Your task to perform on an android device: check battery use Image 0: 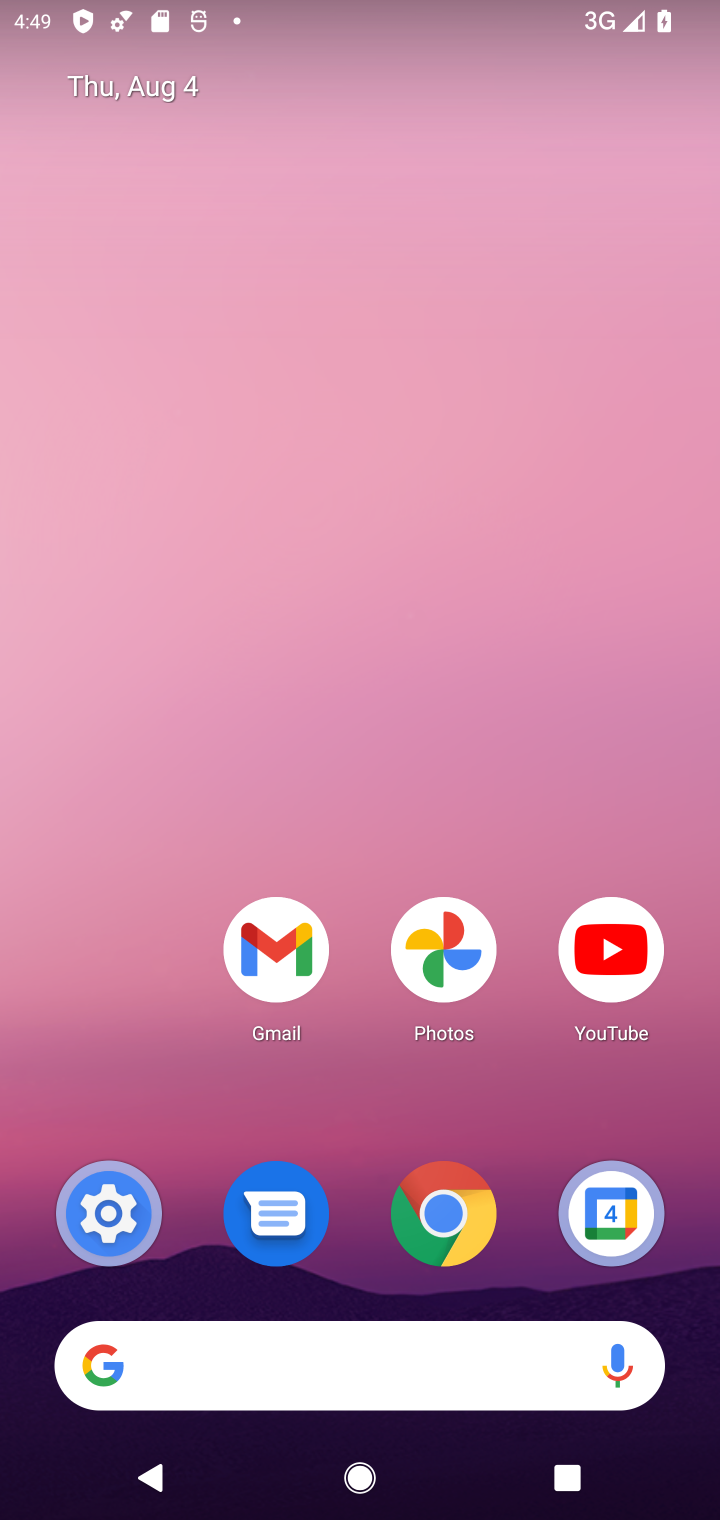
Step 0: press home button
Your task to perform on an android device: check battery use Image 1: 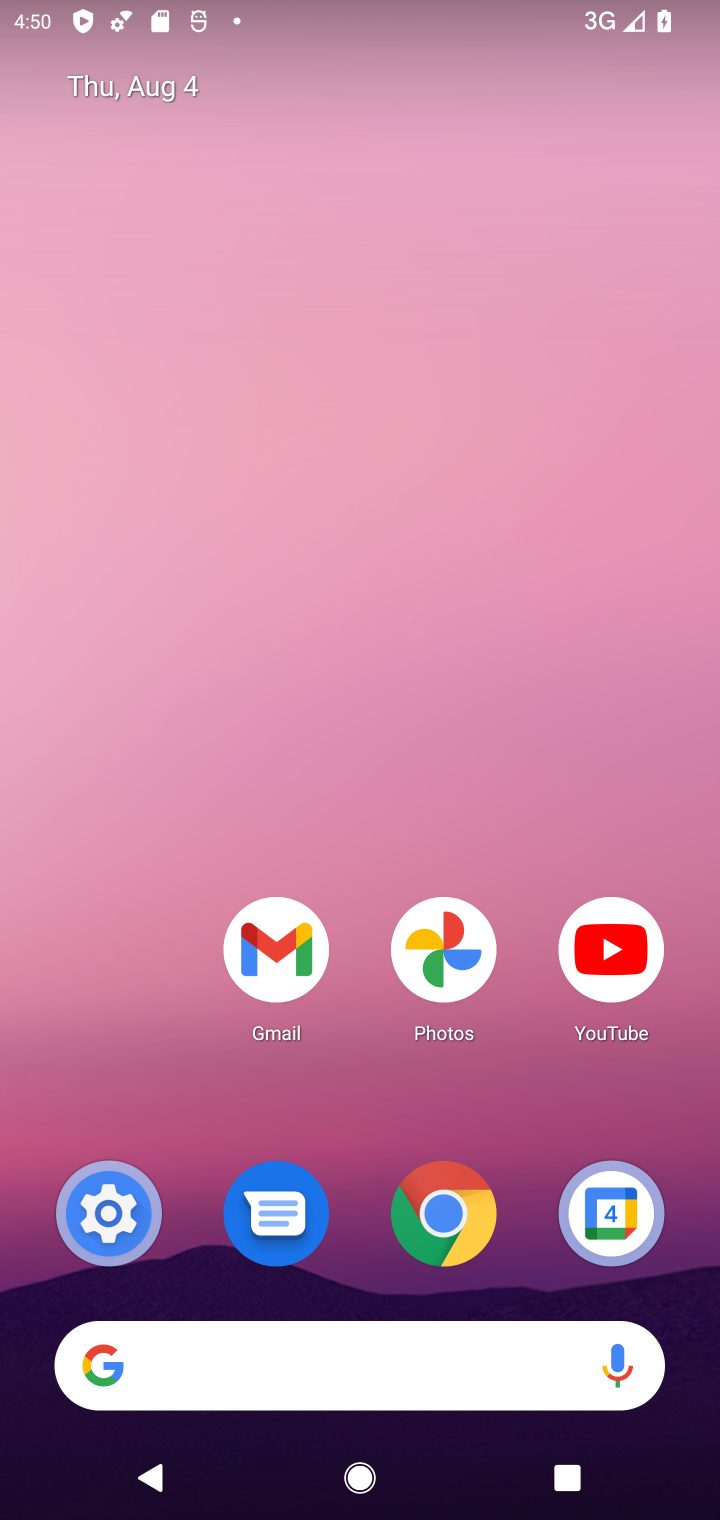
Step 1: drag from (177, 1132) to (184, 451)
Your task to perform on an android device: check battery use Image 2: 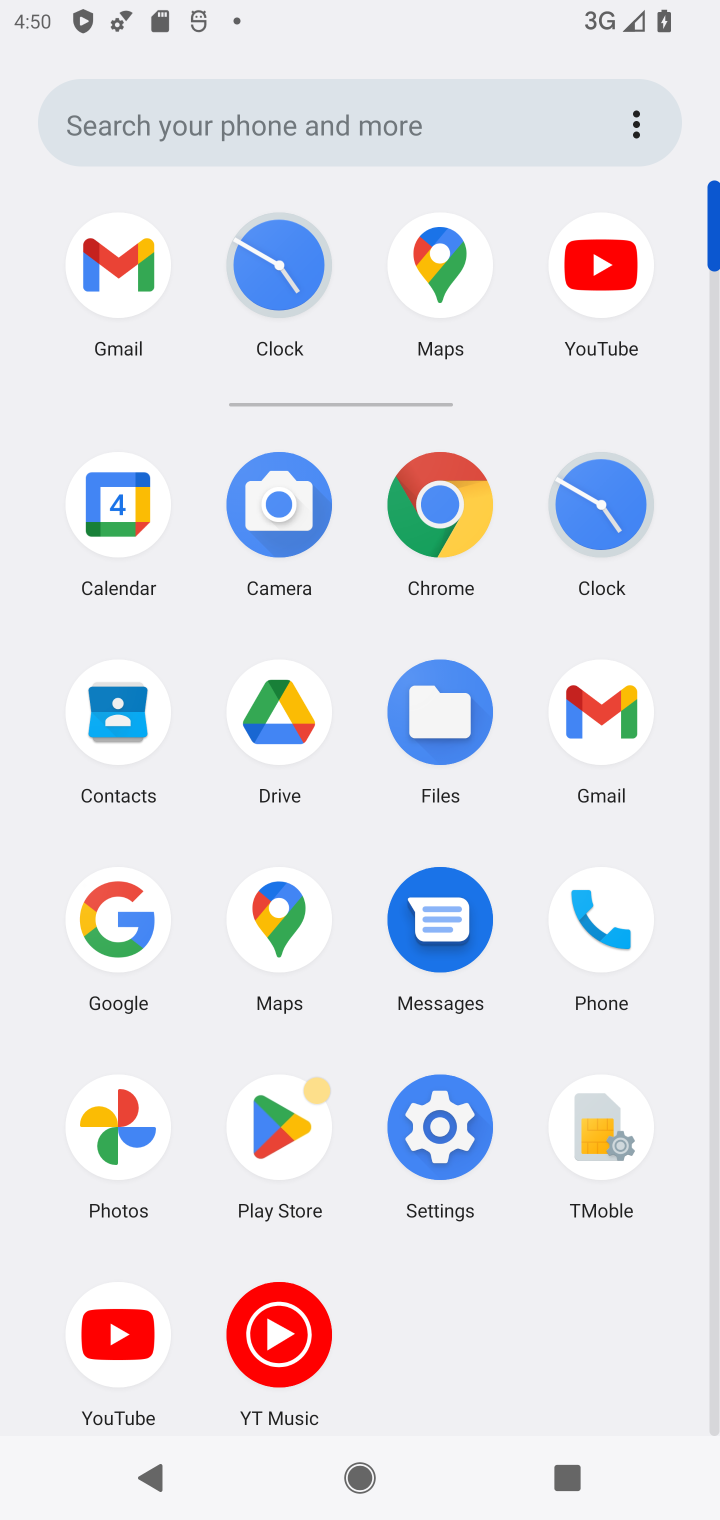
Step 2: click (460, 1108)
Your task to perform on an android device: check battery use Image 3: 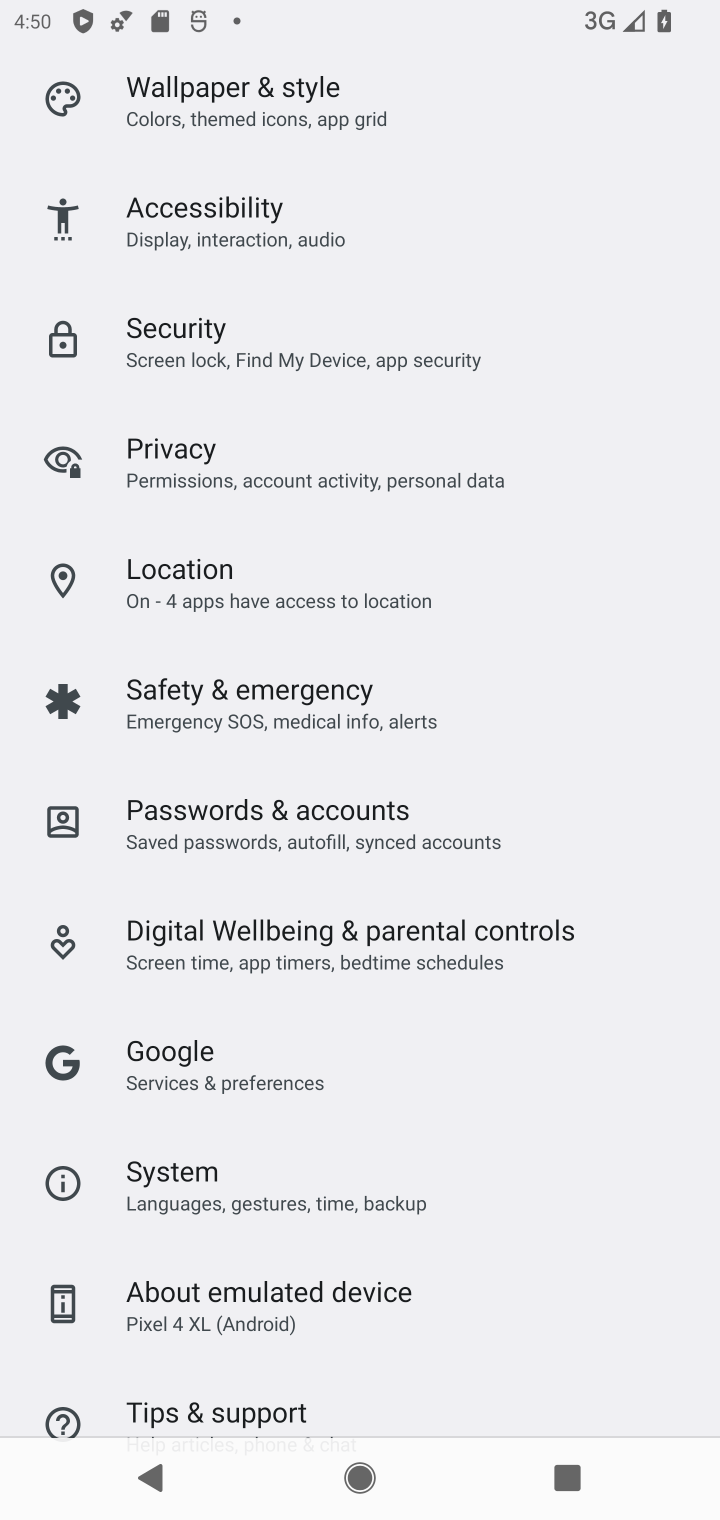
Step 3: drag from (566, 452) to (604, 632)
Your task to perform on an android device: check battery use Image 4: 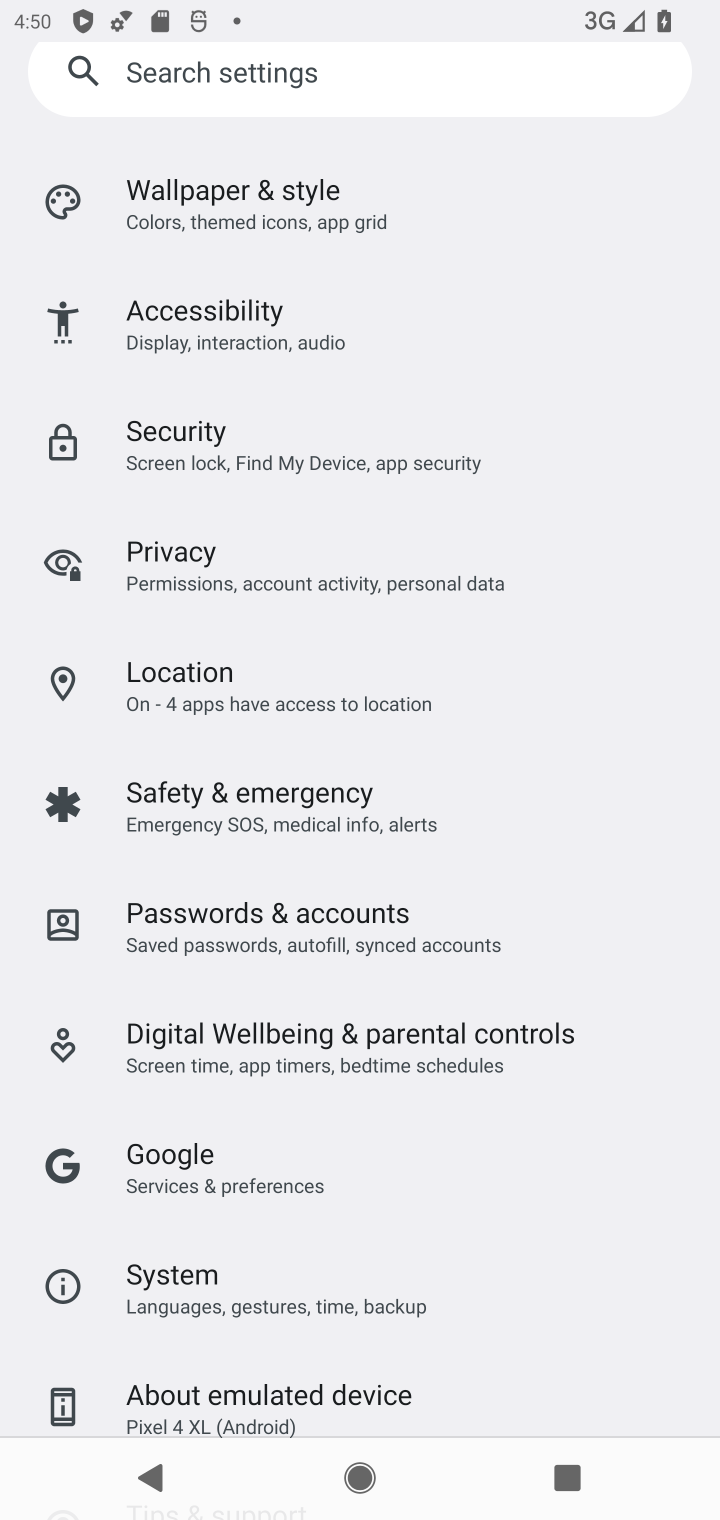
Step 4: drag from (592, 375) to (643, 651)
Your task to perform on an android device: check battery use Image 5: 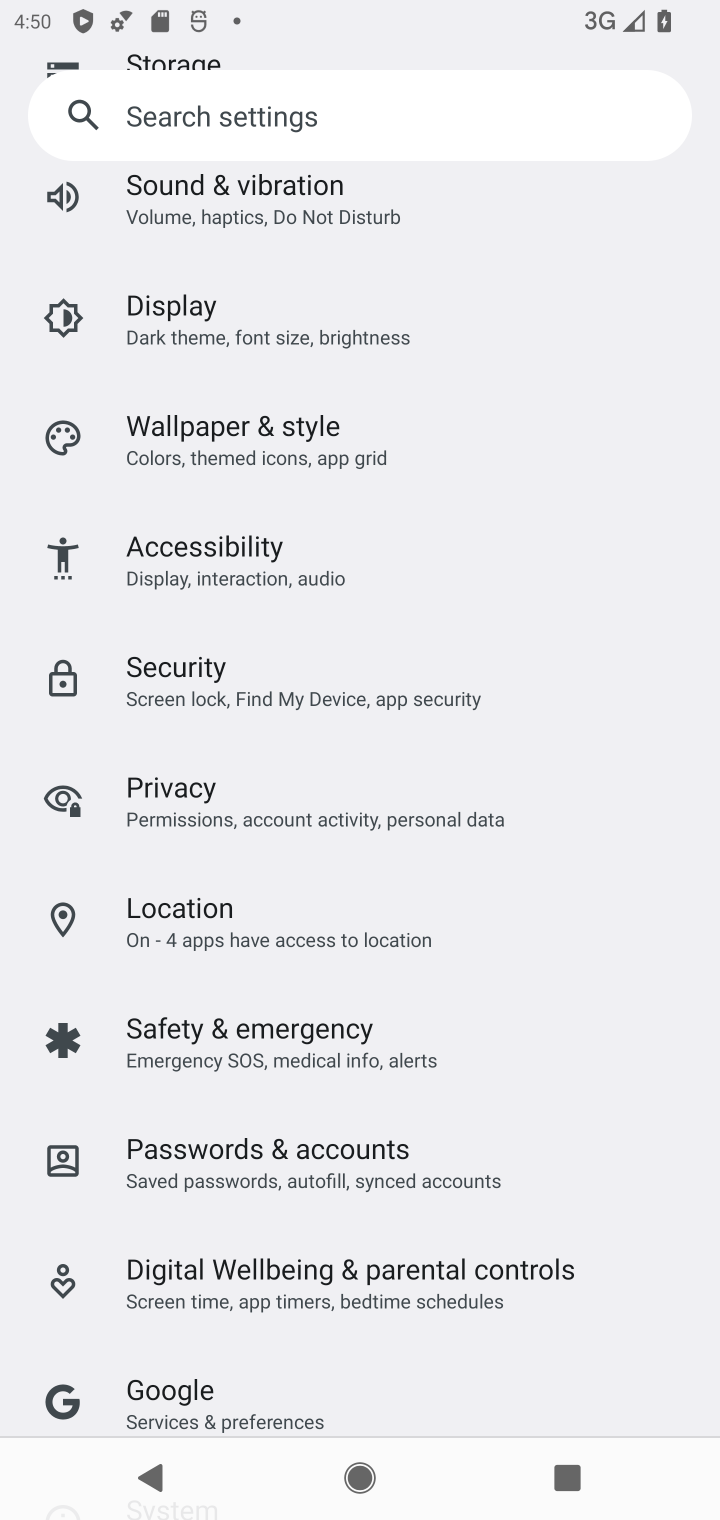
Step 5: drag from (654, 374) to (650, 719)
Your task to perform on an android device: check battery use Image 6: 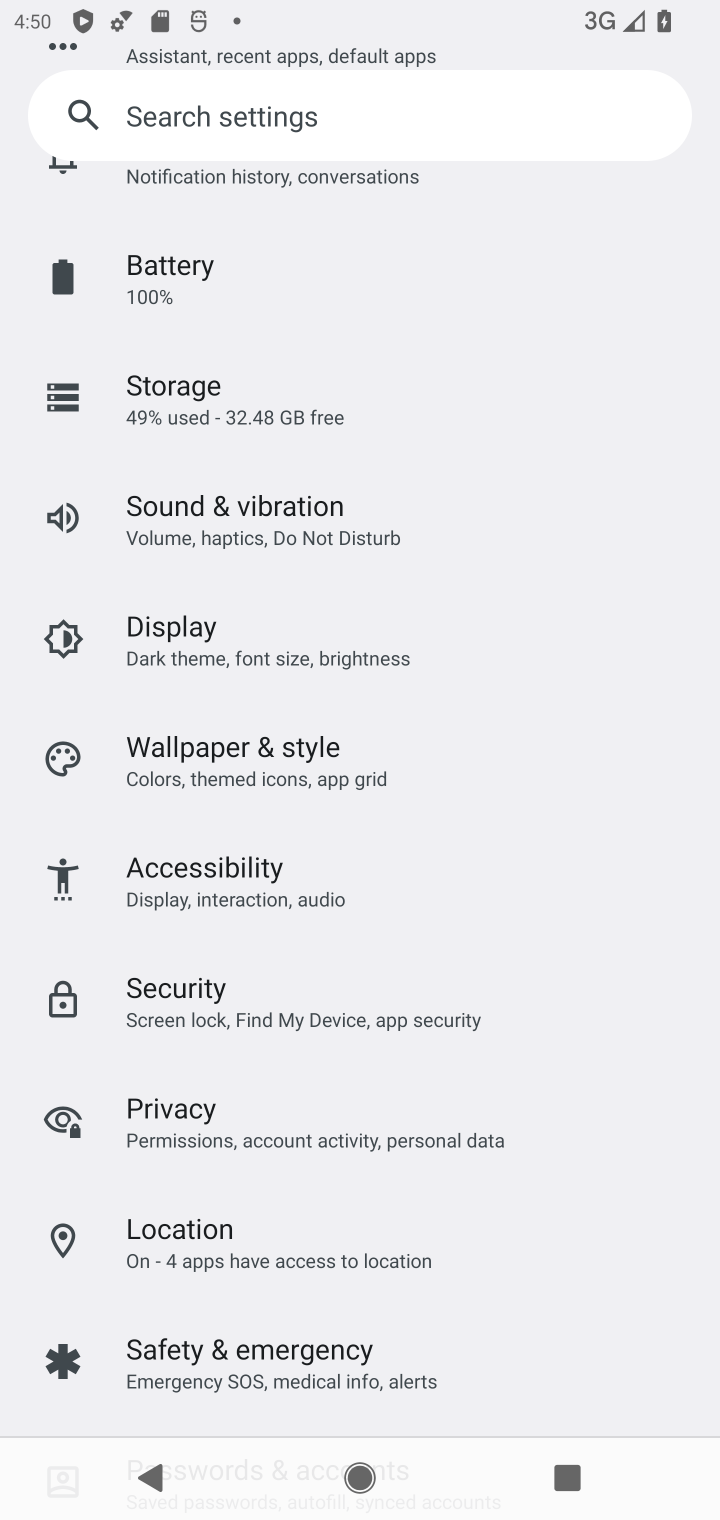
Step 6: drag from (553, 328) to (594, 931)
Your task to perform on an android device: check battery use Image 7: 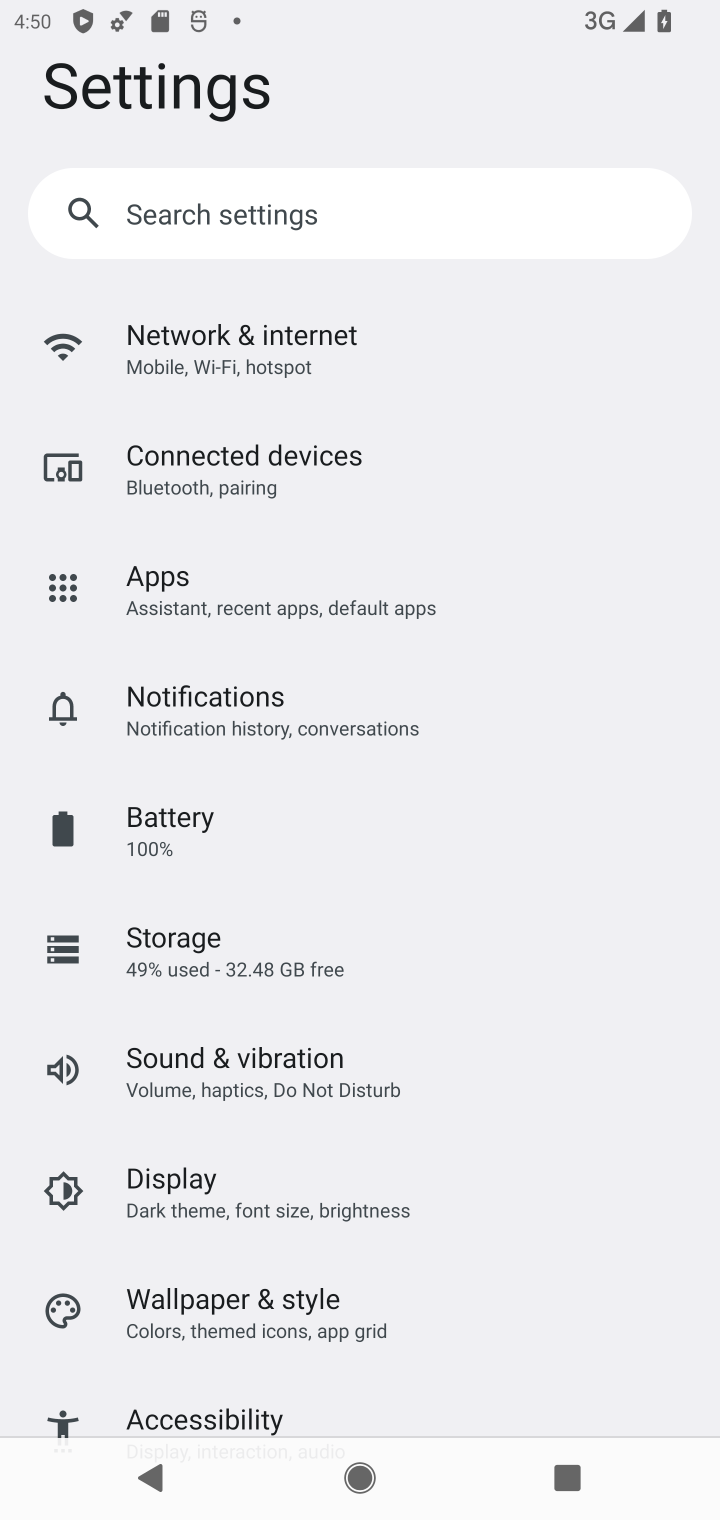
Step 7: click (309, 829)
Your task to perform on an android device: check battery use Image 8: 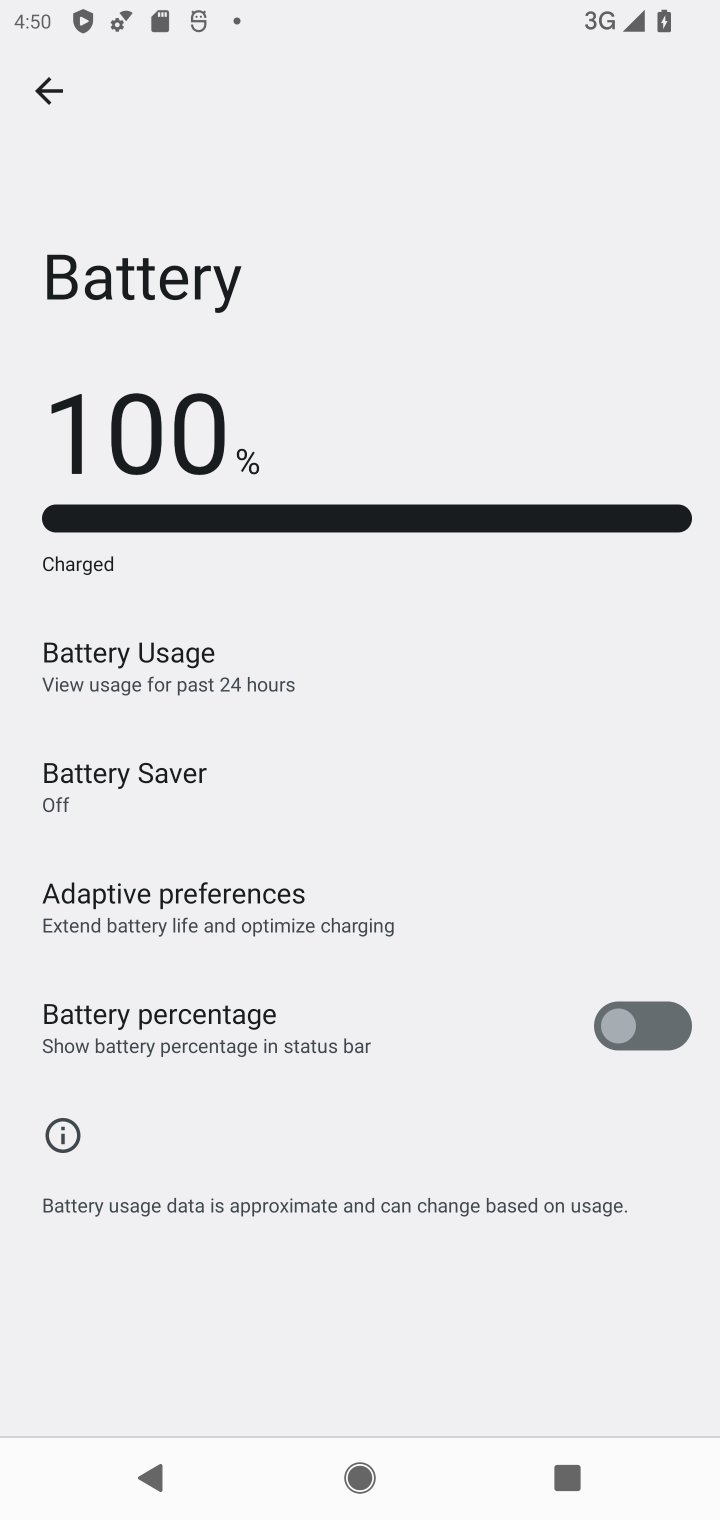
Step 8: click (239, 662)
Your task to perform on an android device: check battery use Image 9: 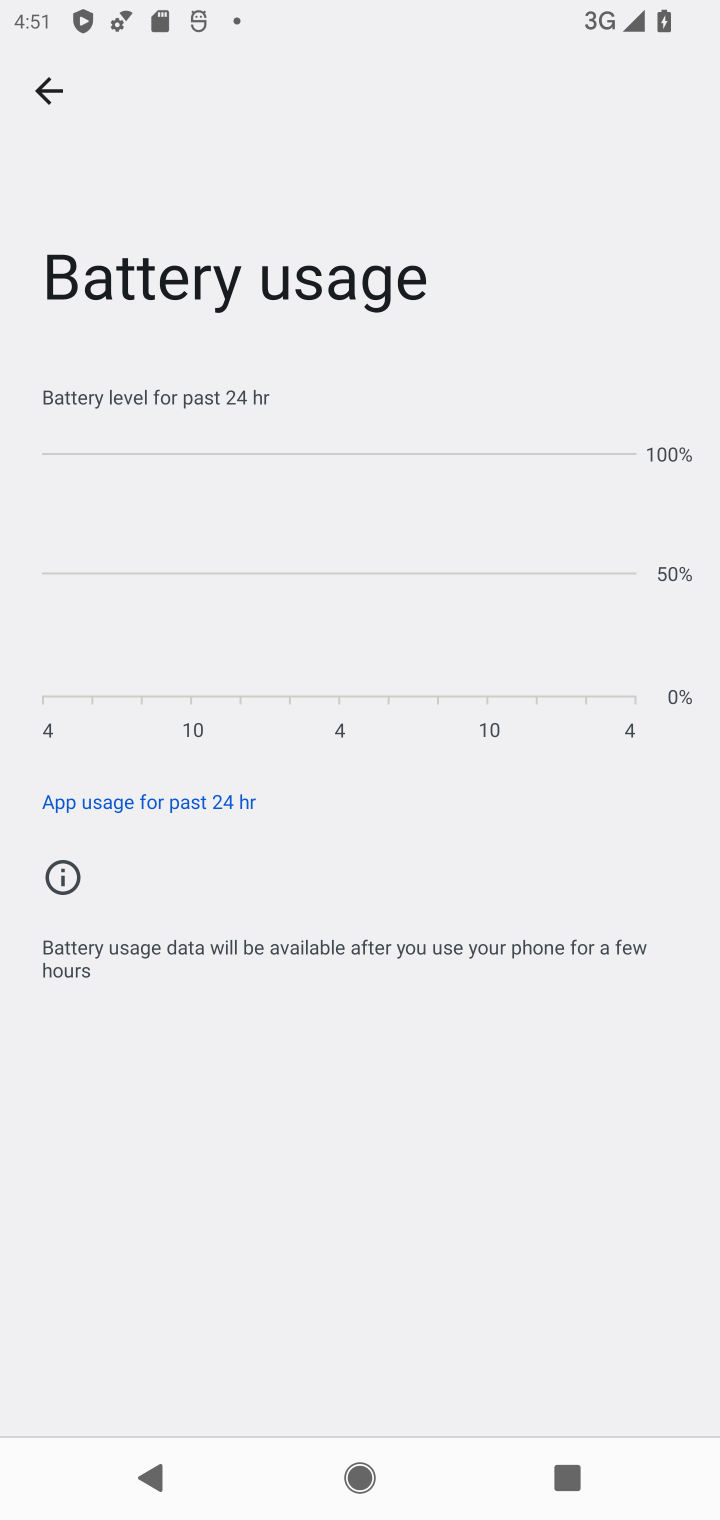
Step 9: task complete